Your task to perform on an android device: clear all cookies in the chrome app Image 0: 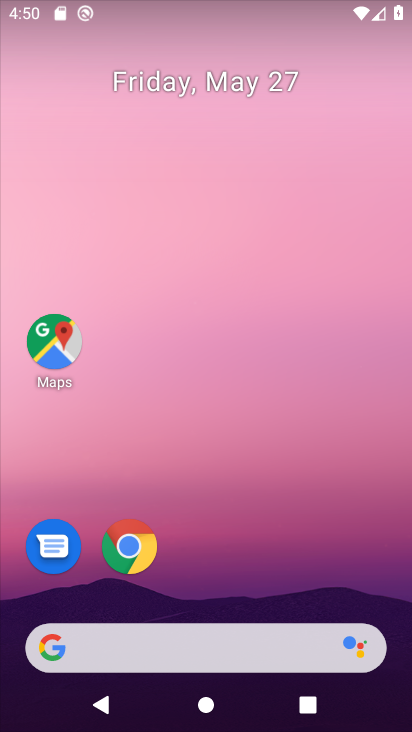
Step 0: drag from (281, 542) to (191, 37)
Your task to perform on an android device: clear all cookies in the chrome app Image 1: 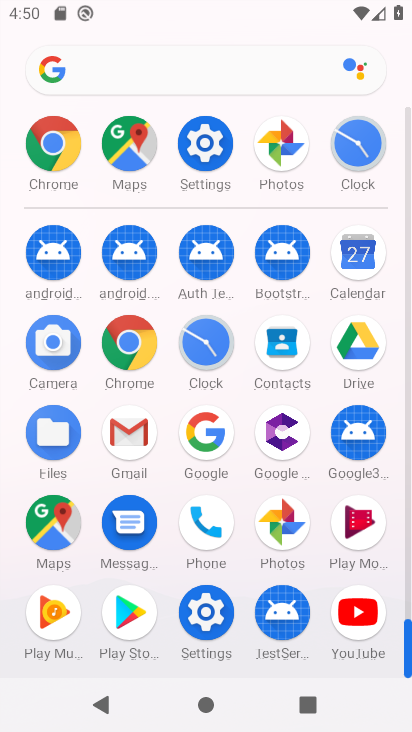
Step 1: drag from (8, 494) to (21, 186)
Your task to perform on an android device: clear all cookies in the chrome app Image 2: 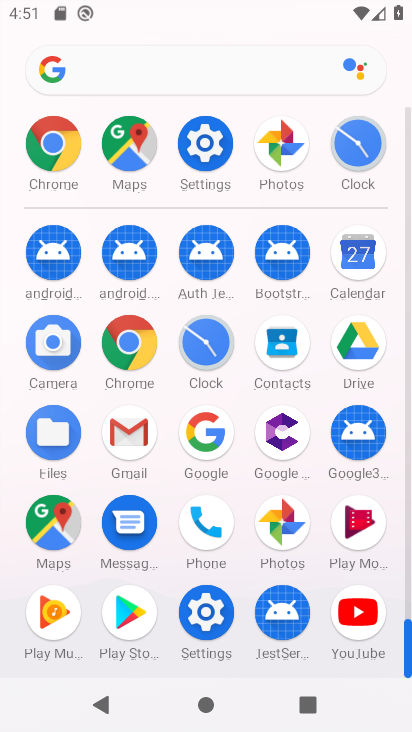
Step 2: drag from (6, 570) to (2, 301)
Your task to perform on an android device: clear all cookies in the chrome app Image 3: 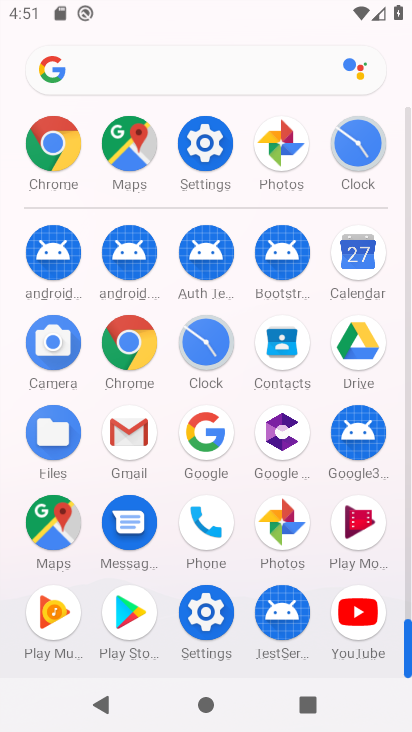
Step 3: click (125, 342)
Your task to perform on an android device: clear all cookies in the chrome app Image 4: 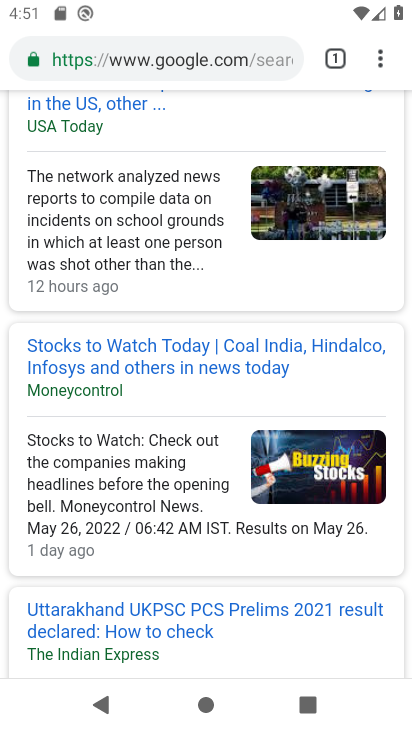
Step 4: drag from (377, 62) to (172, 568)
Your task to perform on an android device: clear all cookies in the chrome app Image 5: 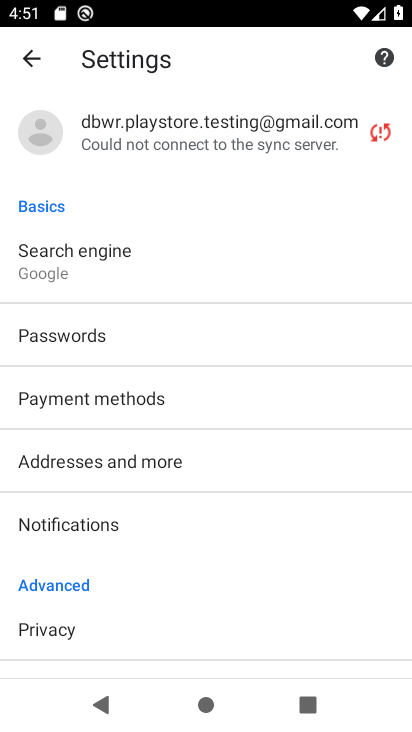
Step 5: drag from (174, 594) to (195, 233)
Your task to perform on an android device: clear all cookies in the chrome app Image 6: 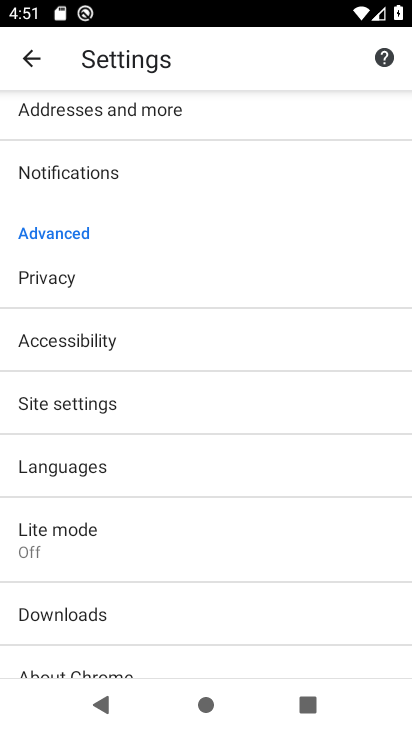
Step 6: click (87, 290)
Your task to perform on an android device: clear all cookies in the chrome app Image 7: 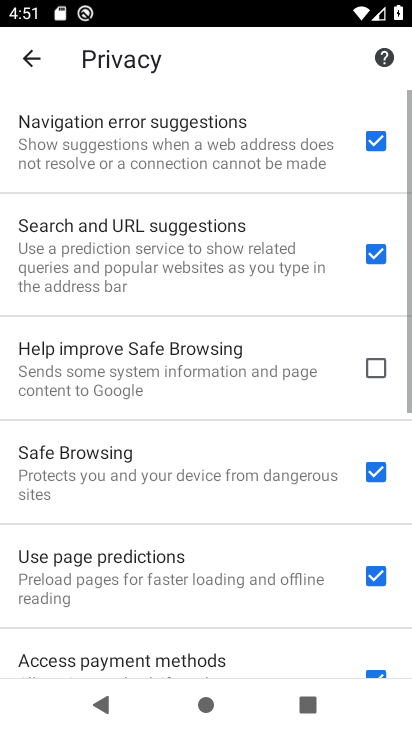
Step 7: drag from (194, 629) to (237, 161)
Your task to perform on an android device: clear all cookies in the chrome app Image 8: 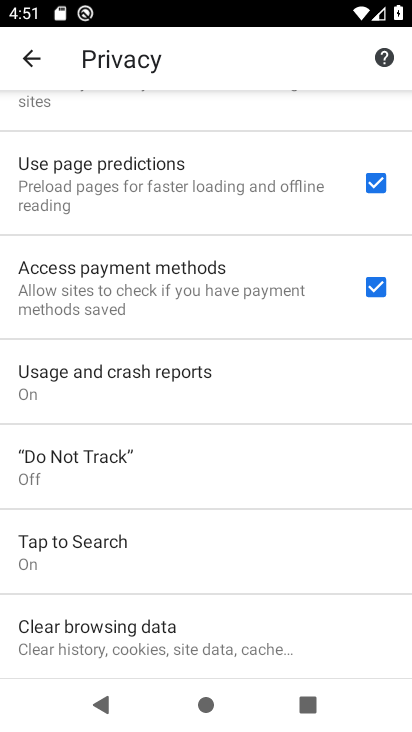
Step 8: click (137, 627)
Your task to perform on an android device: clear all cookies in the chrome app Image 9: 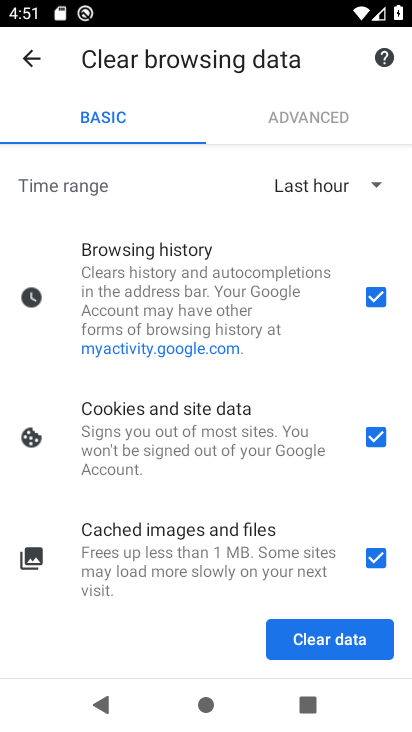
Step 9: drag from (232, 529) to (211, 243)
Your task to perform on an android device: clear all cookies in the chrome app Image 10: 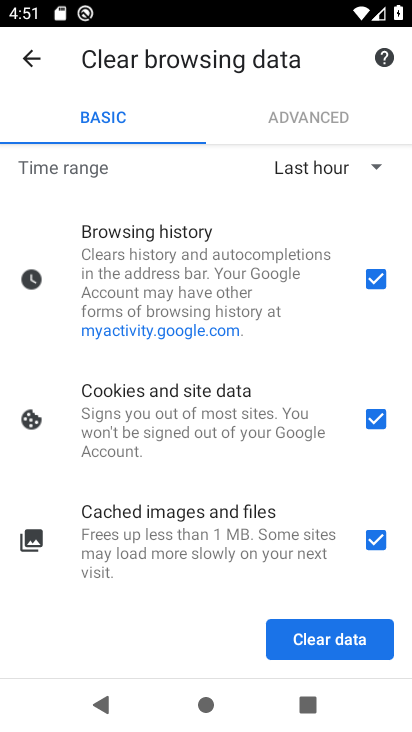
Step 10: click (371, 276)
Your task to perform on an android device: clear all cookies in the chrome app Image 11: 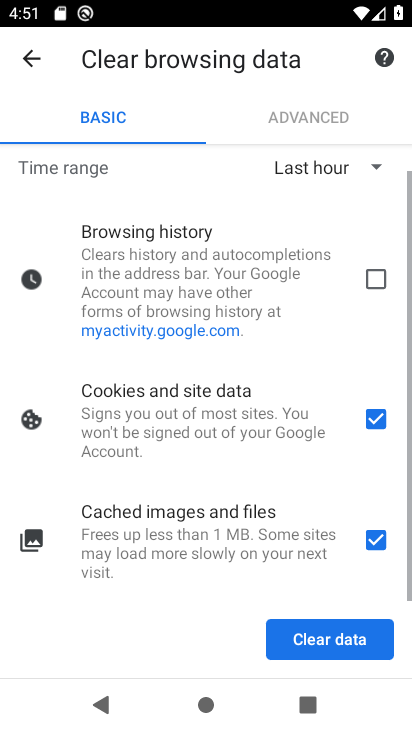
Step 11: click (375, 538)
Your task to perform on an android device: clear all cookies in the chrome app Image 12: 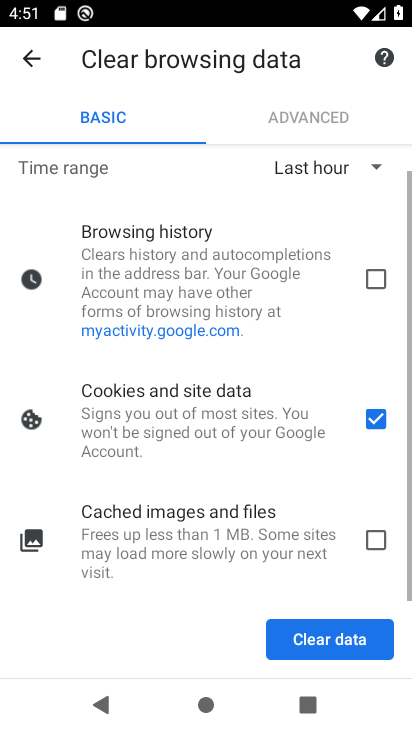
Step 12: click (325, 638)
Your task to perform on an android device: clear all cookies in the chrome app Image 13: 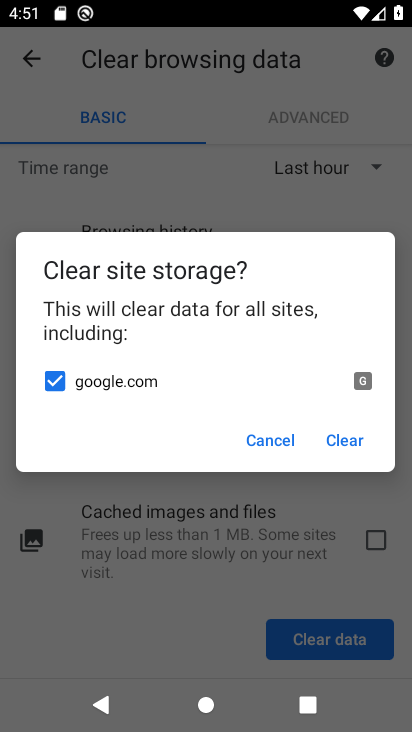
Step 13: click (350, 438)
Your task to perform on an android device: clear all cookies in the chrome app Image 14: 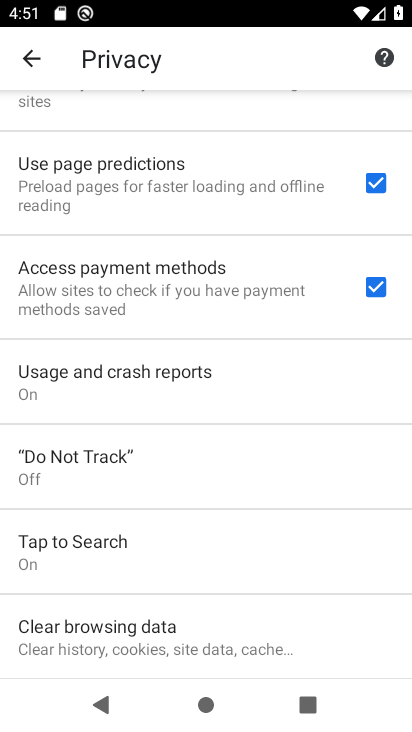
Step 14: task complete